Your task to perform on an android device: Open Google Maps and go to "Timeline" Image 0: 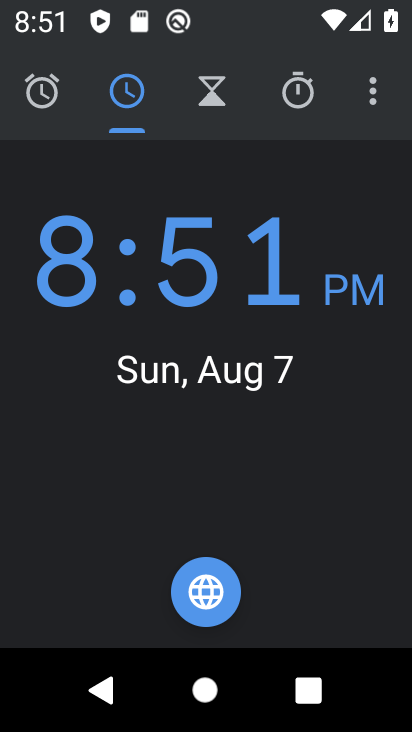
Step 0: press home button
Your task to perform on an android device: Open Google Maps and go to "Timeline" Image 1: 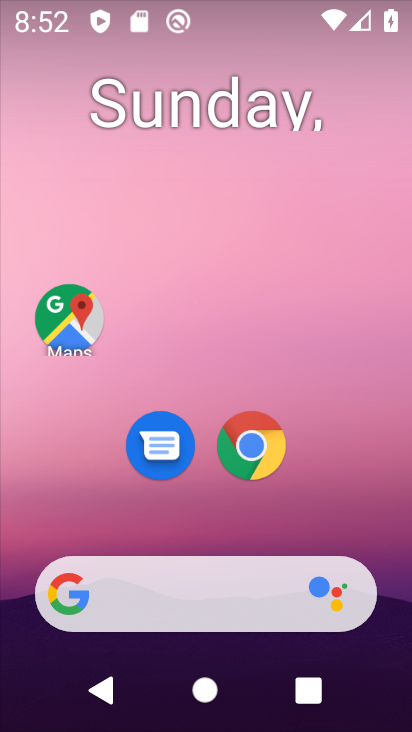
Step 1: click (81, 301)
Your task to perform on an android device: Open Google Maps and go to "Timeline" Image 2: 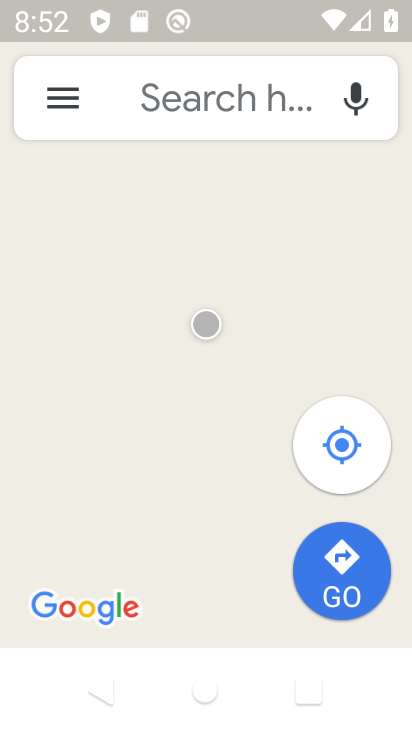
Step 2: click (41, 81)
Your task to perform on an android device: Open Google Maps and go to "Timeline" Image 3: 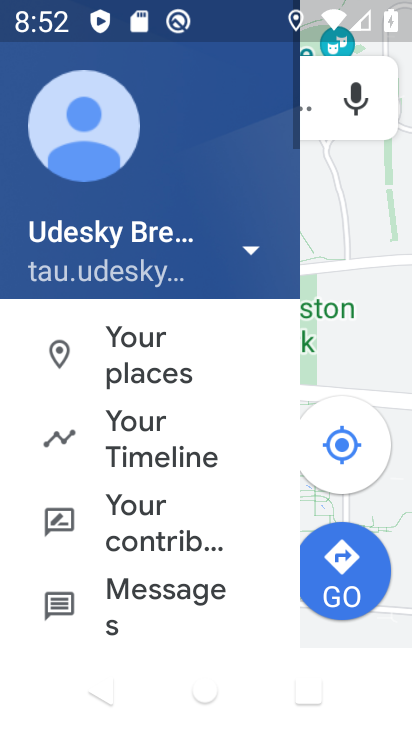
Step 3: click (156, 459)
Your task to perform on an android device: Open Google Maps and go to "Timeline" Image 4: 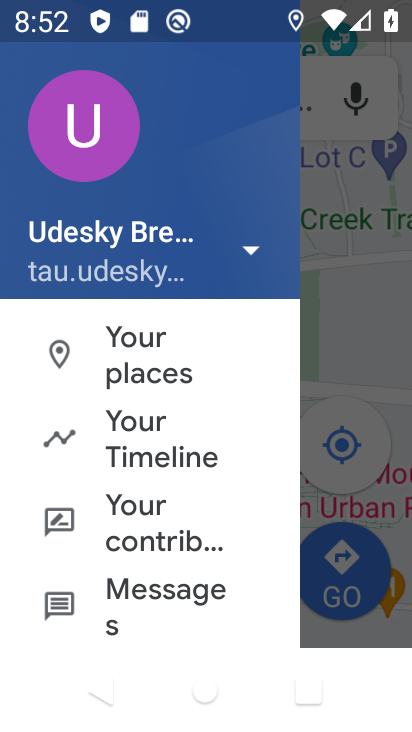
Step 4: click (141, 438)
Your task to perform on an android device: Open Google Maps and go to "Timeline" Image 5: 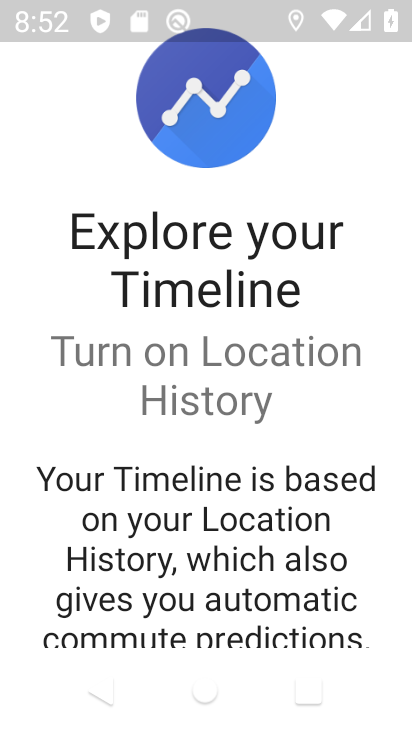
Step 5: drag from (243, 523) to (266, 146)
Your task to perform on an android device: Open Google Maps and go to "Timeline" Image 6: 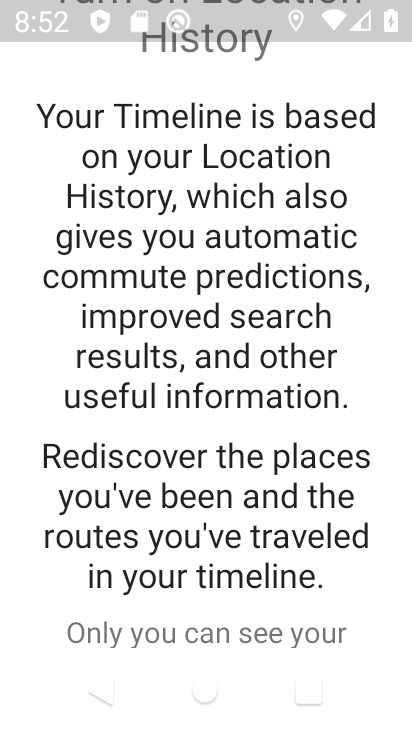
Step 6: drag from (252, 567) to (298, 71)
Your task to perform on an android device: Open Google Maps and go to "Timeline" Image 7: 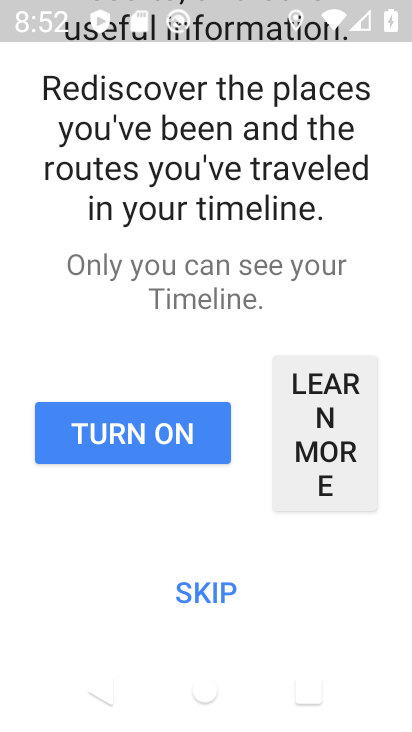
Step 7: click (128, 438)
Your task to perform on an android device: Open Google Maps and go to "Timeline" Image 8: 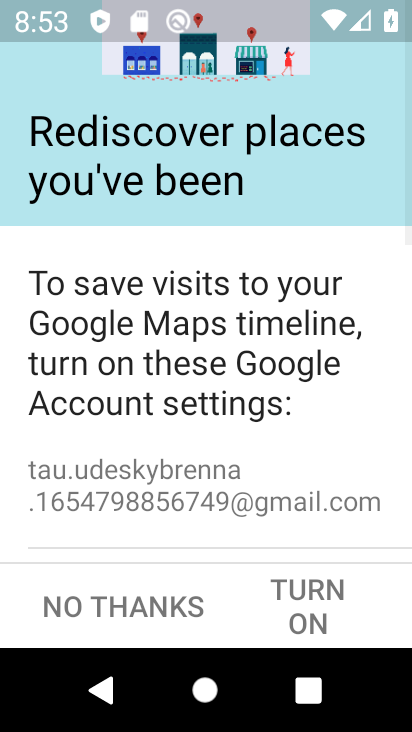
Step 8: task complete